Your task to perform on an android device: change notification settings in the gmail app Image 0: 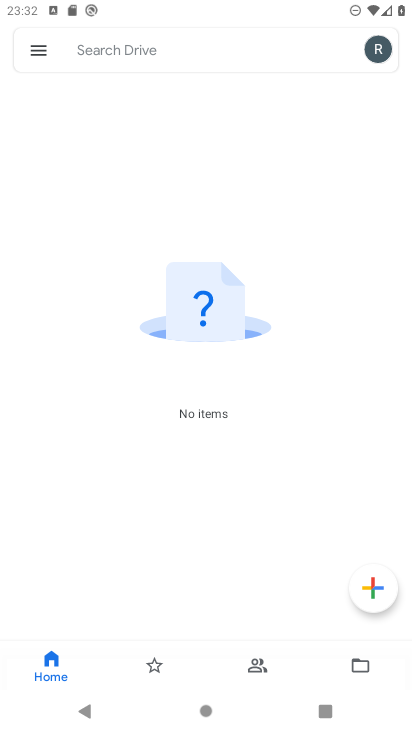
Step 0: press home button
Your task to perform on an android device: change notification settings in the gmail app Image 1: 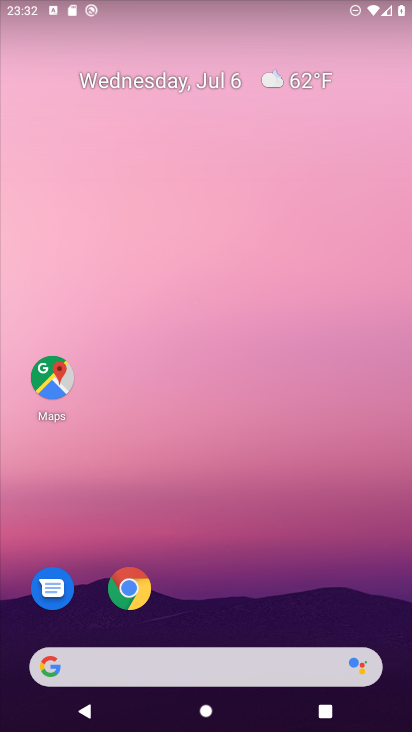
Step 1: drag from (358, 606) to (306, 29)
Your task to perform on an android device: change notification settings in the gmail app Image 2: 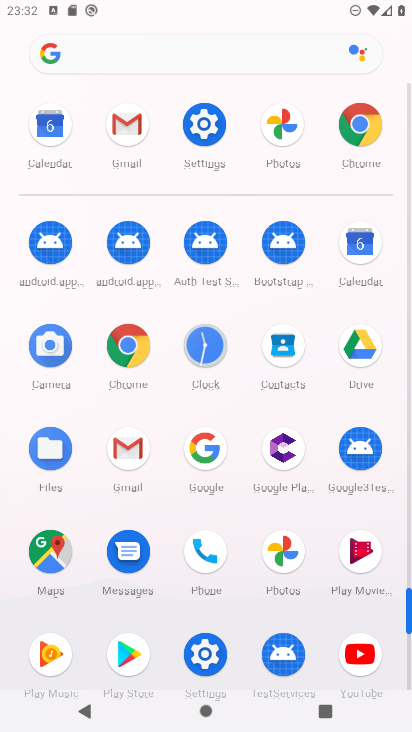
Step 2: click (126, 449)
Your task to perform on an android device: change notification settings in the gmail app Image 3: 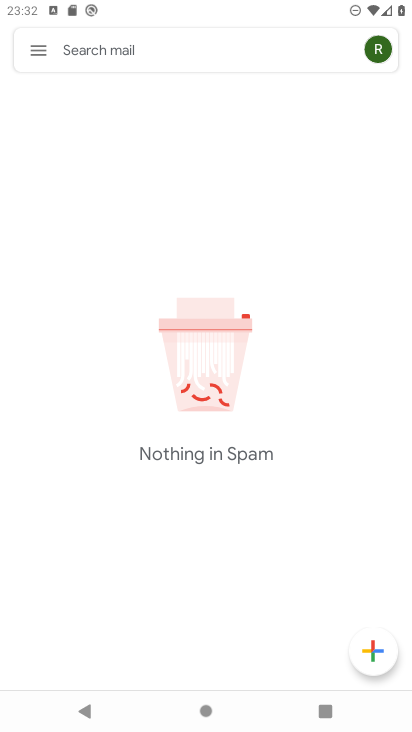
Step 3: click (36, 49)
Your task to perform on an android device: change notification settings in the gmail app Image 4: 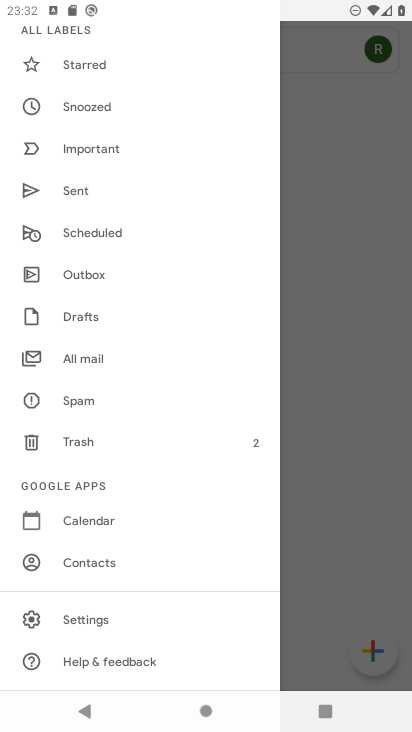
Step 4: click (97, 620)
Your task to perform on an android device: change notification settings in the gmail app Image 5: 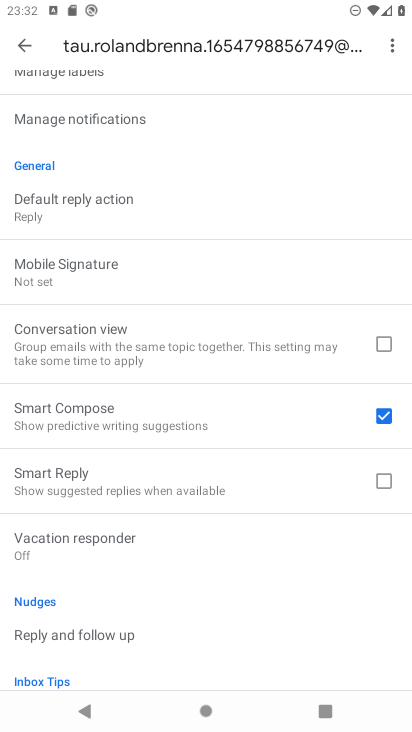
Step 5: drag from (233, 194) to (249, 490)
Your task to perform on an android device: change notification settings in the gmail app Image 6: 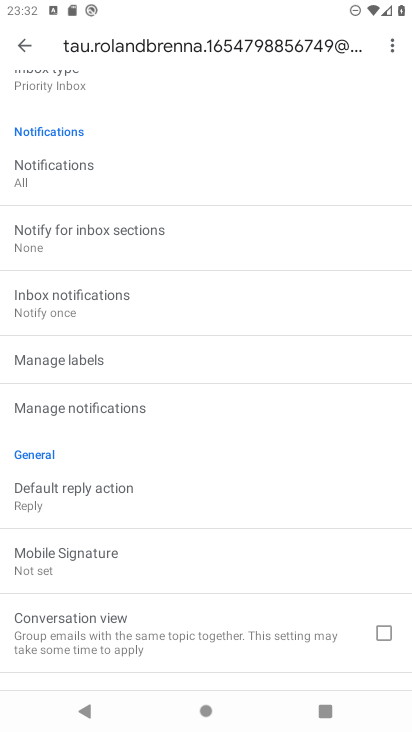
Step 6: click (61, 406)
Your task to perform on an android device: change notification settings in the gmail app Image 7: 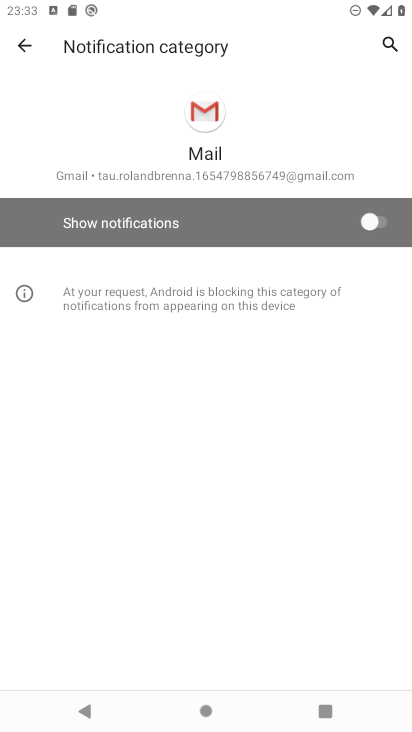
Step 7: click (380, 220)
Your task to perform on an android device: change notification settings in the gmail app Image 8: 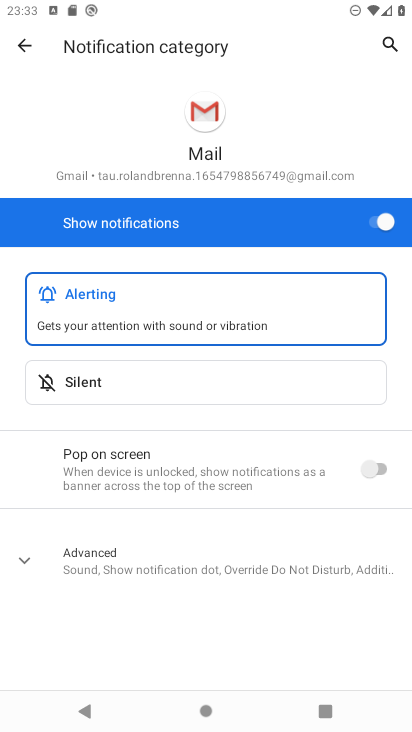
Step 8: task complete